Your task to perform on an android device: Do I have any events today? Image 0: 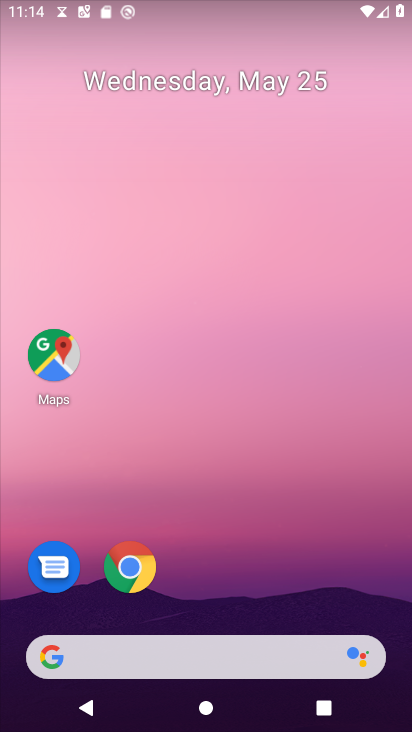
Step 0: click (235, 87)
Your task to perform on an android device: Do I have any events today? Image 1: 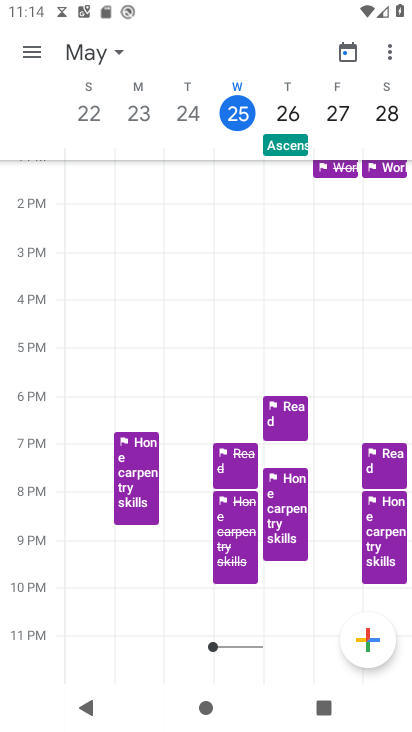
Step 1: click (24, 49)
Your task to perform on an android device: Do I have any events today? Image 2: 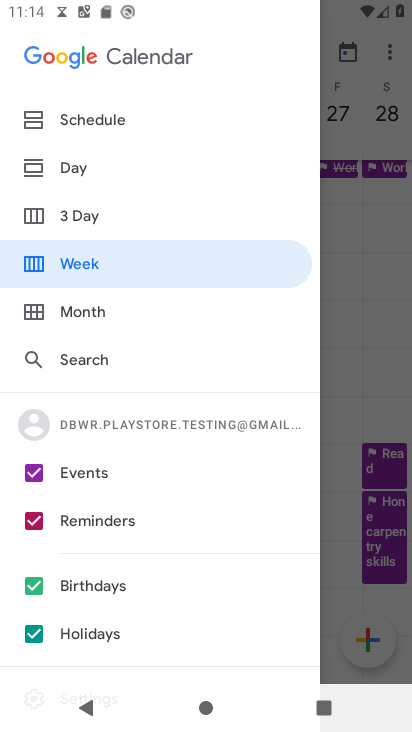
Step 2: click (34, 521)
Your task to perform on an android device: Do I have any events today? Image 3: 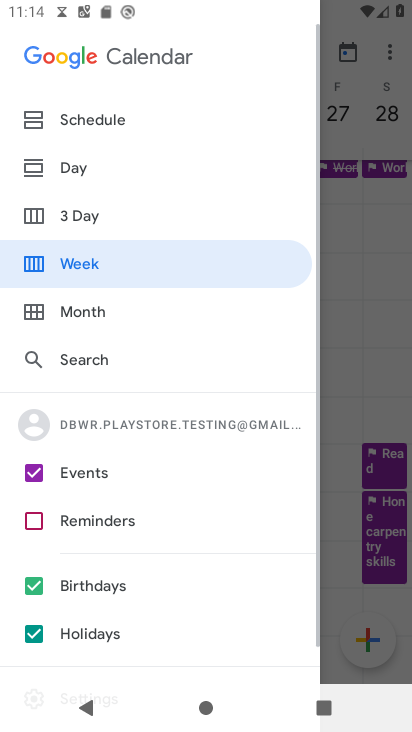
Step 3: click (35, 590)
Your task to perform on an android device: Do I have any events today? Image 4: 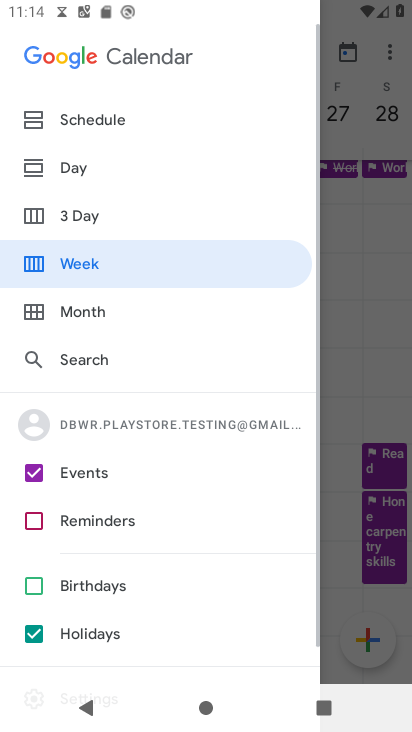
Step 4: click (30, 632)
Your task to perform on an android device: Do I have any events today? Image 5: 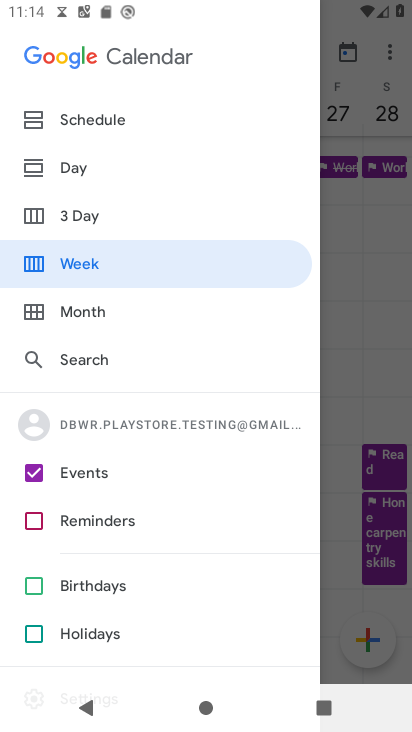
Step 5: click (134, 122)
Your task to perform on an android device: Do I have any events today? Image 6: 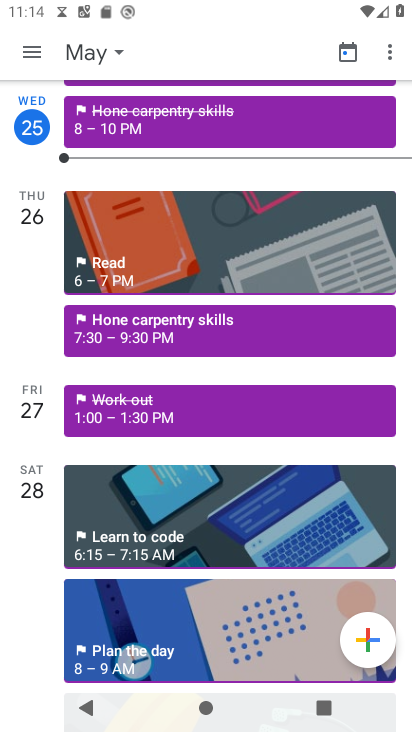
Step 6: drag from (208, 205) to (207, 65)
Your task to perform on an android device: Do I have any events today? Image 7: 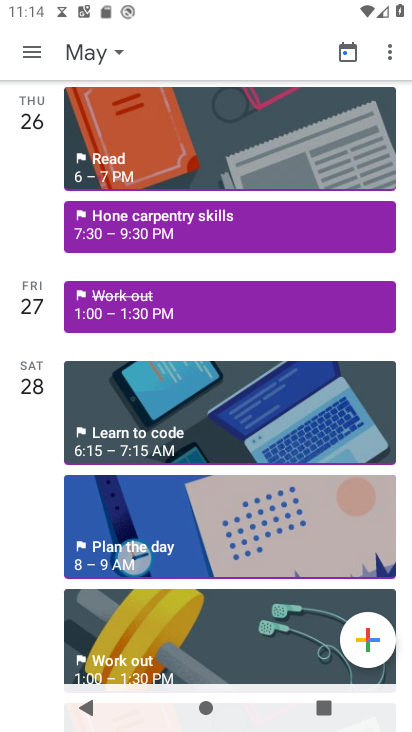
Step 7: click (218, 123)
Your task to perform on an android device: Do I have any events today? Image 8: 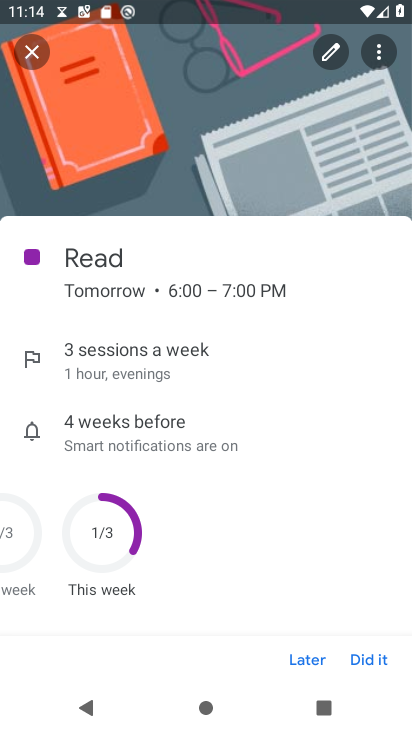
Step 8: task complete